Your task to perform on an android device: change the clock style Image 0: 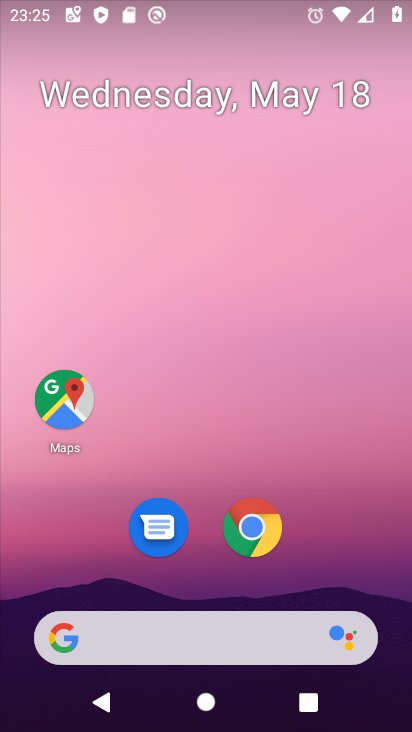
Step 0: drag from (336, 567) to (283, 82)
Your task to perform on an android device: change the clock style Image 1: 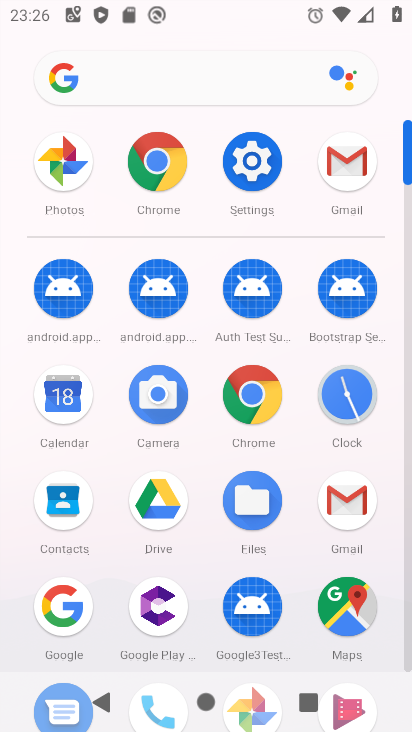
Step 1: click (369, 419)
Your task to perform on an android device: change the clock style Image 2: 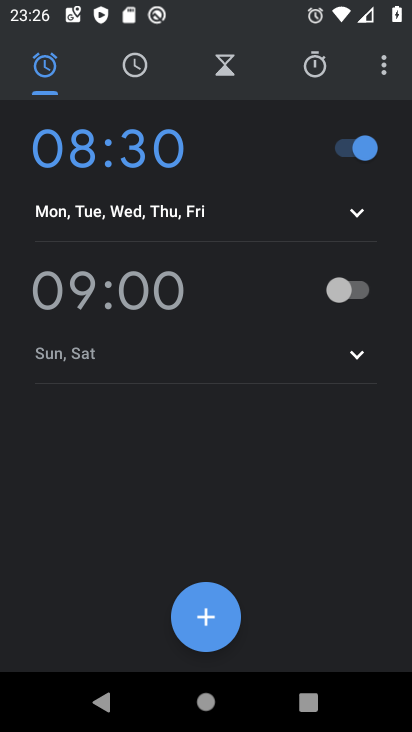
Step 2: click (393, 67)
Your task to perform on an android device: change the clock style Image 3: 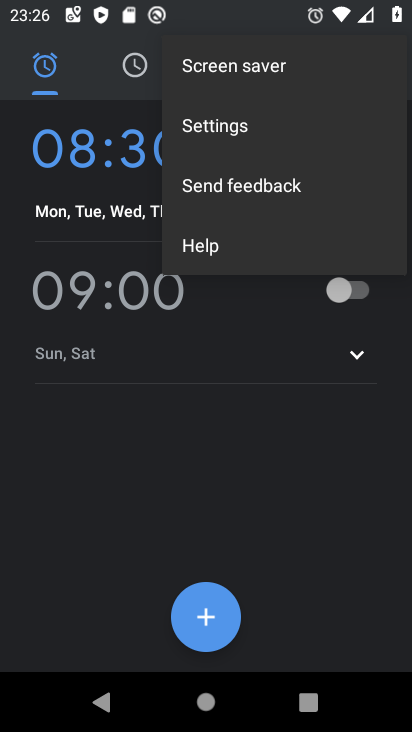
Step 3: click (208, 124)
Your task to perform on an android device: change the clock style Image 4: 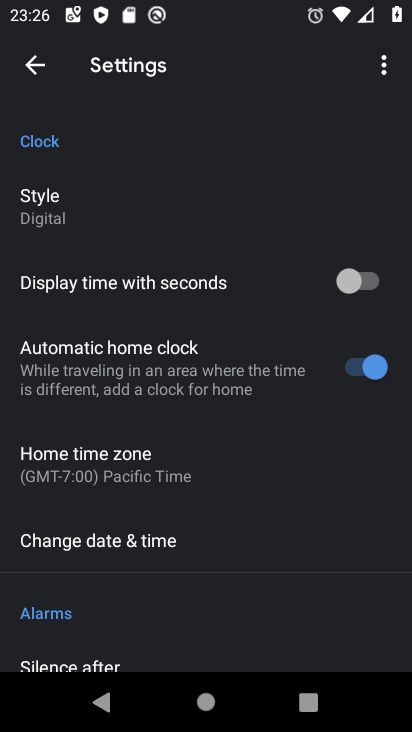
Step 4: click (94, 197)
Your task to perform on an android device: change the clock style Image 5: 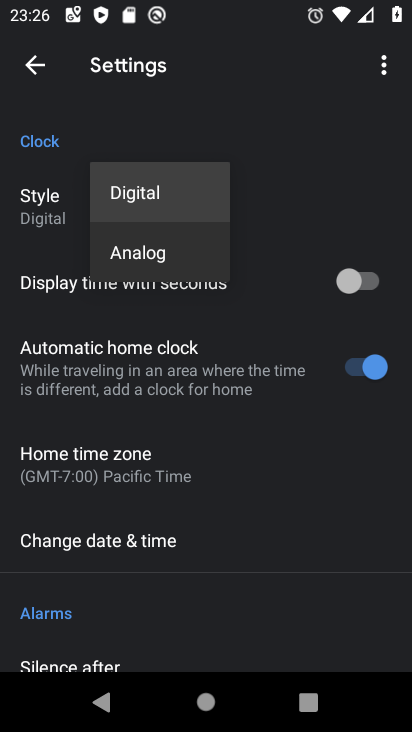
Step 5: click (127, 244)
Your task to perform on an android device: change the clock style Image 6: 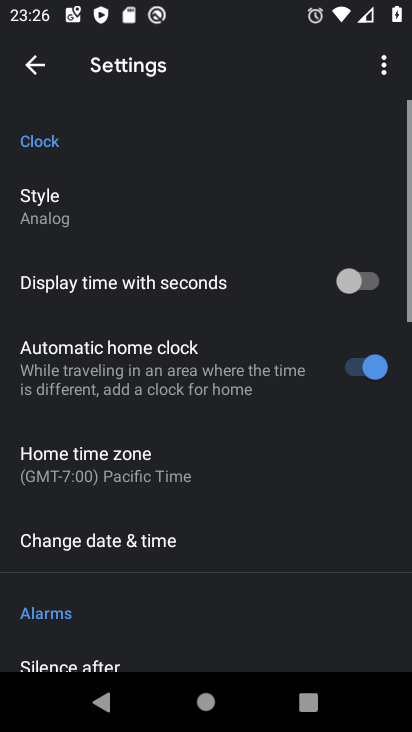
Step 6: task complete